Your task to perform on an android device: refresh tabs in the chrome app Image 0: 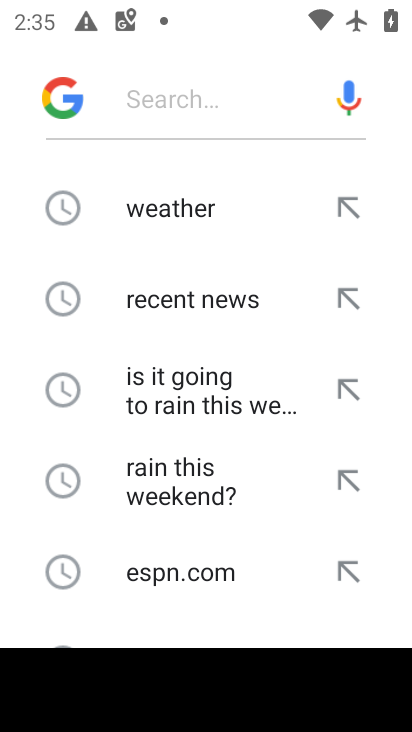
Step 0: press home button
Your task to perform on an android device: refresh tabs in the chrome app Image 1: 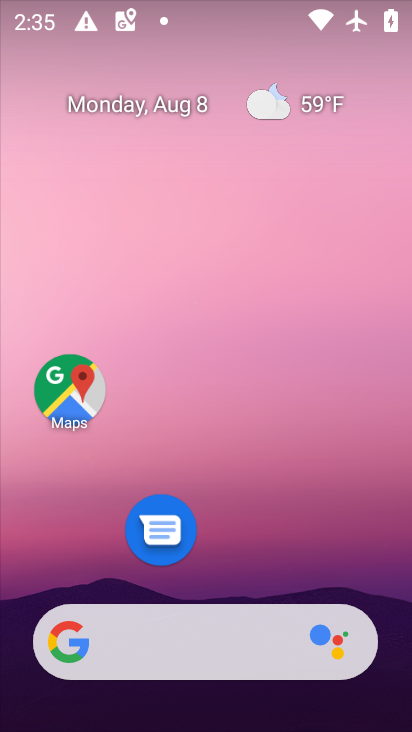
Step 1: drag from (262, 383) to (262, 47)
Your task to perform on an android device: refresh tabs in the chrome app Image 2: 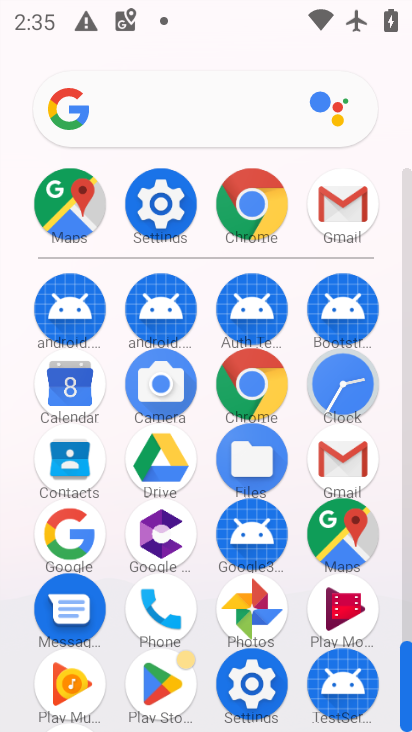
Step 2: click (253, 383)
Your task to perform on an android device: refresh tabs in the chrome app Image 3: 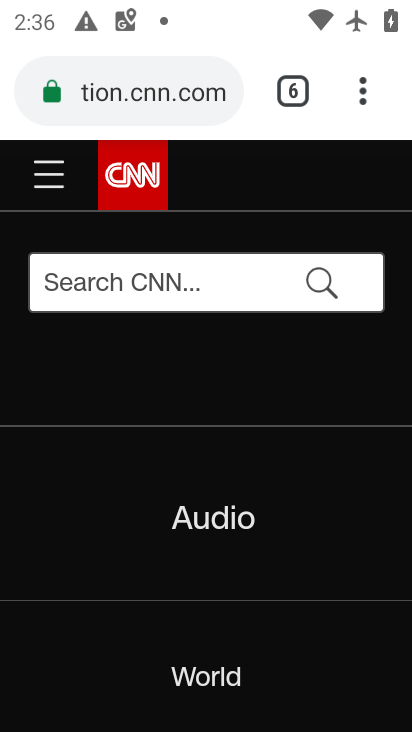
Step 3: task complete